Your task to perform on an android device: turn on showing notifications on the lock screen Image 0: 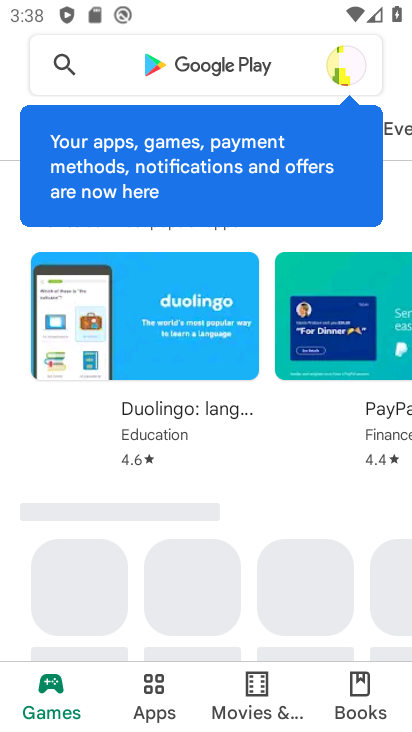
Step 0: press home button
Your task to perform on an android device: turn on showing notifications on the lock screen Image 1: 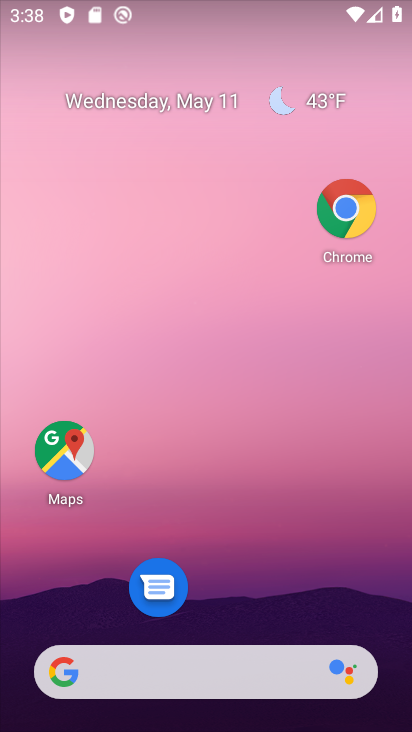
Step 1: task complete